Your task to perform on an android device: change notification settings in the gmail app Image 0: 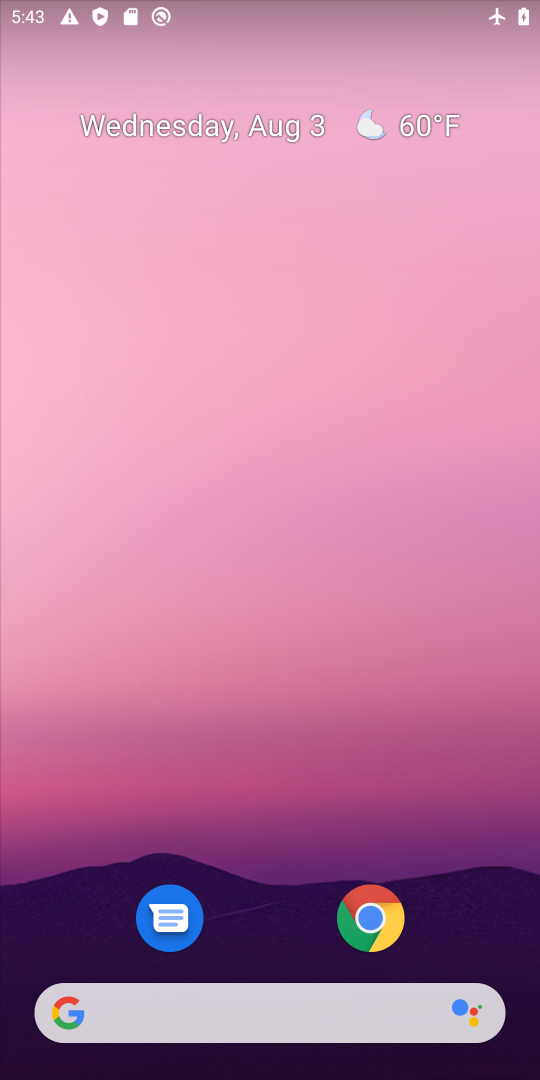
Step 0: drag from (222, 1000) to (355, 243)
Your task to perform on an android device: change notification settings in the gmail app Image 1: 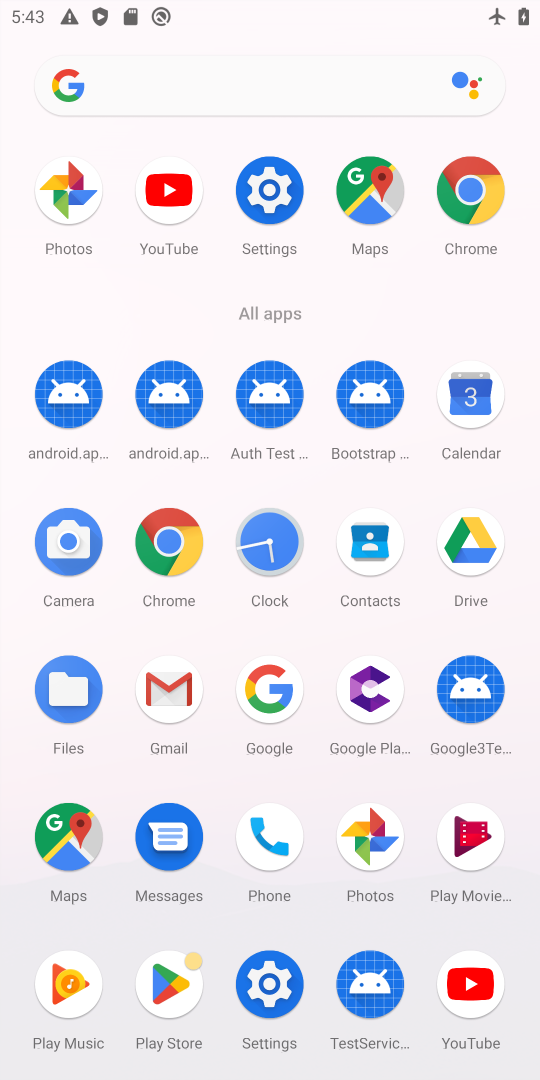
Step 1: click (164, 684)
Your task to perform on an android device: change notification settings in the gmail app Image 2: 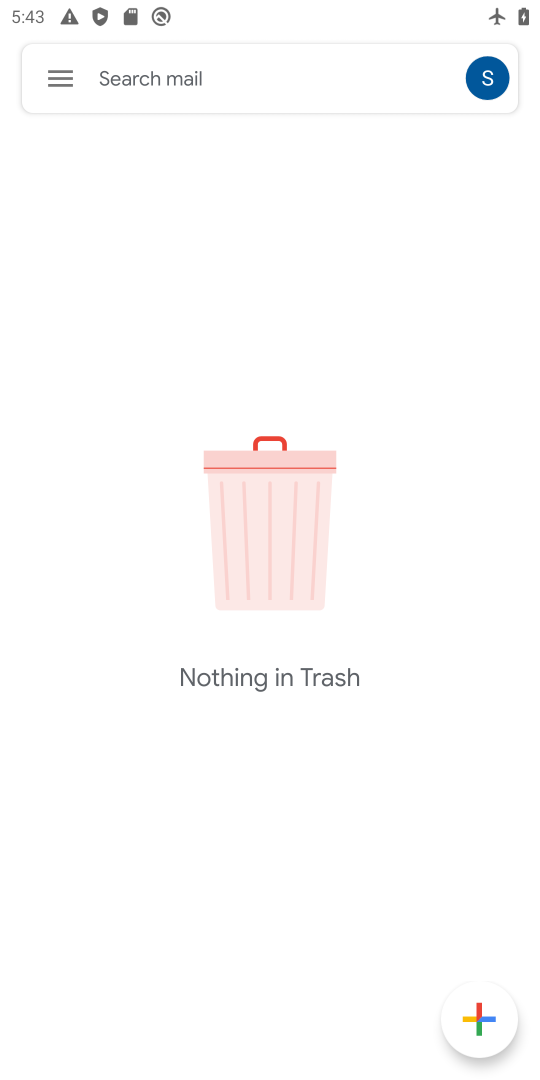
Step 2: click (68, 61)
Your task to perform on an android device: change notification settings in the gmail app Image 3: 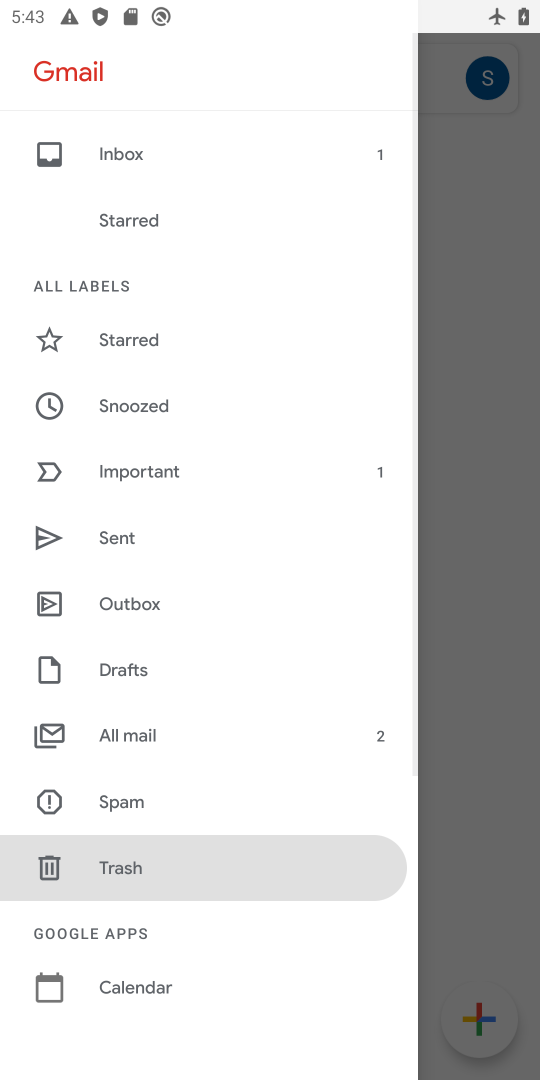
Step 3: drag from (137, 990) to (154, 374)
Your task to perform on an android device: change notification settings in the gmail app Image 4: 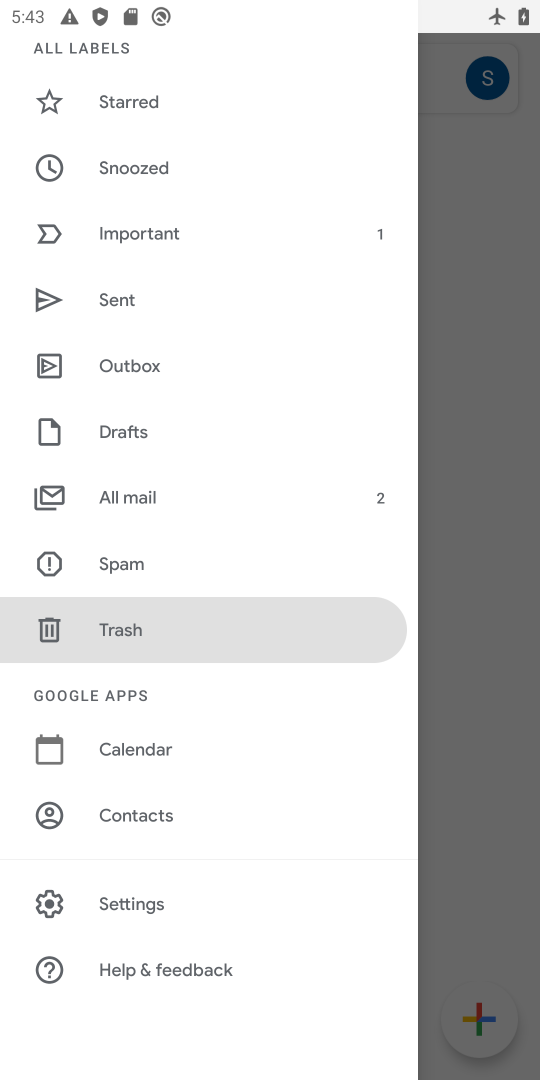
Step 4: click (146, 908)
Your task to perform on an android device: change notification settings in the gmail app Image 5: 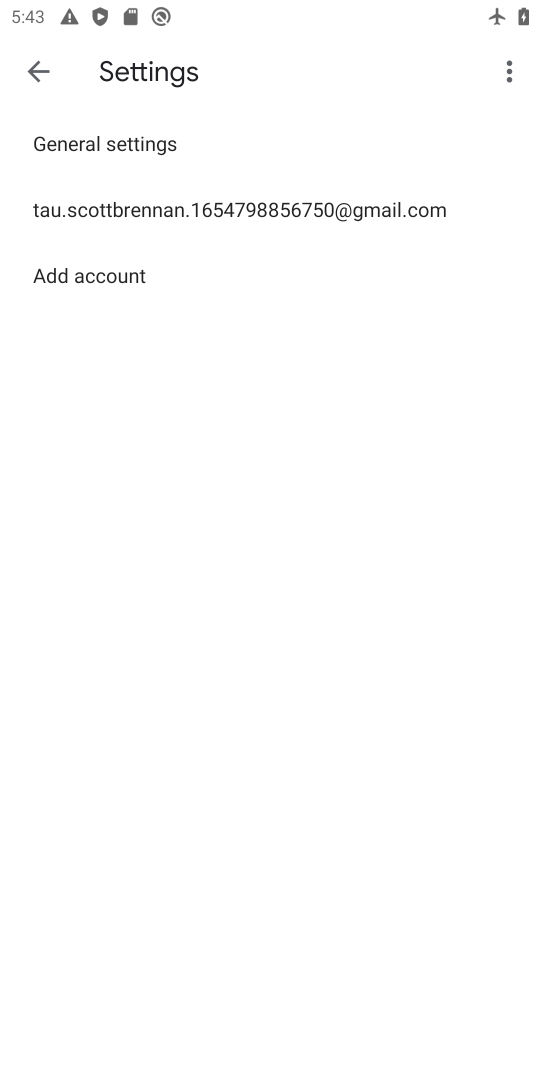
Step 5: click (251, 206)
Your task to perform on an android device: change notification settings in the gmail app Image 6: 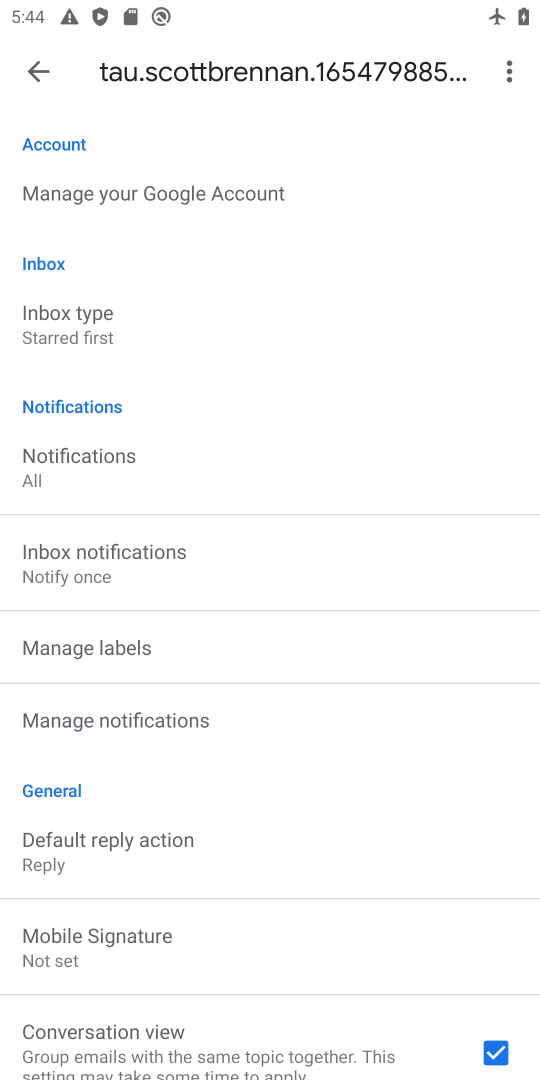
Step 6: click (113, 729)
Your task to perform on an android device: change notification settings in the gmail app Image 7: 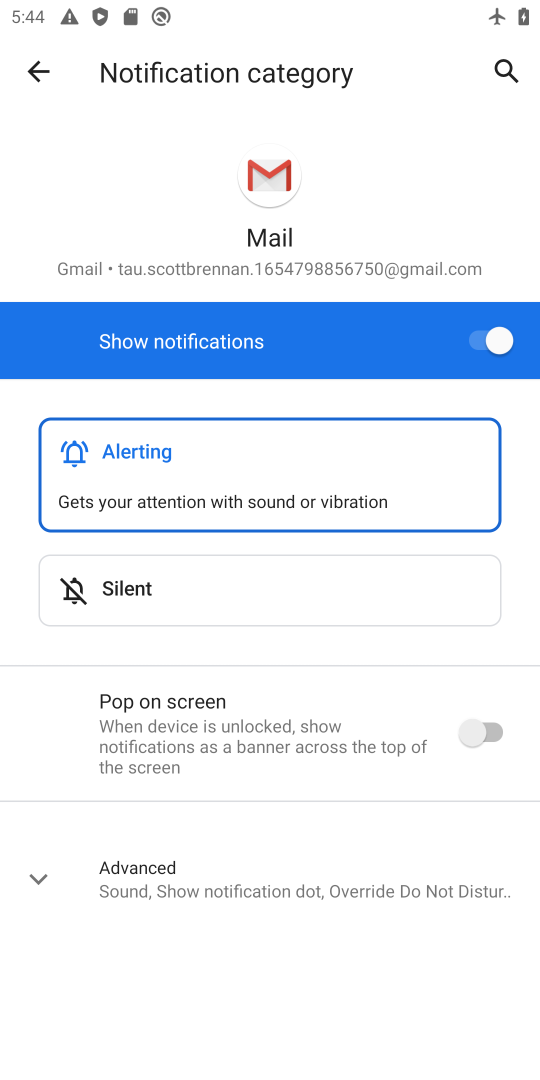
Step 7: click (211, 584)
Your task to perform on an android device: change notification settings in the gmail app Image 8: 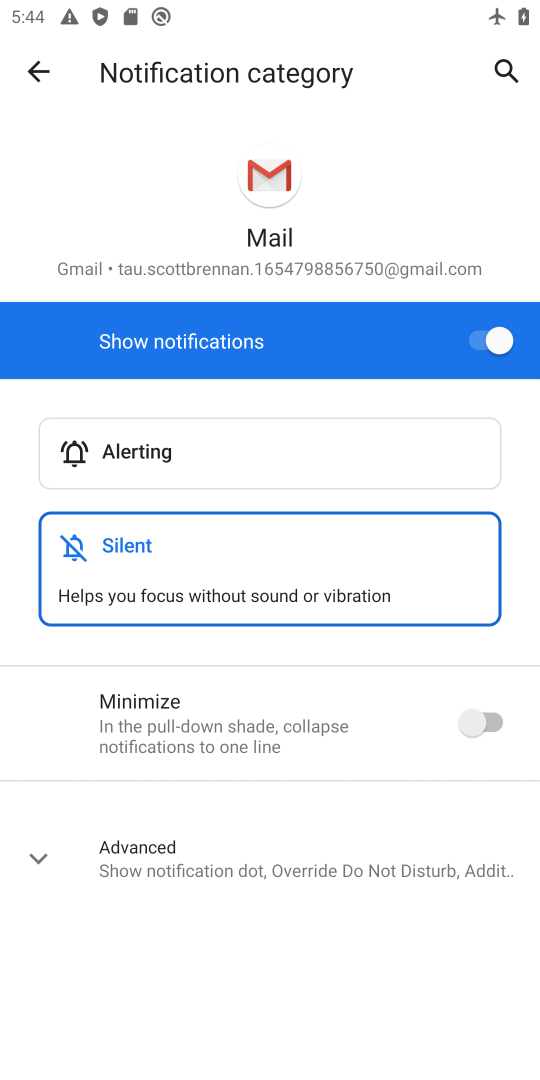
Step 8: task complete